Your task to perform on an android device: change your default location settings in chrome Image 0: 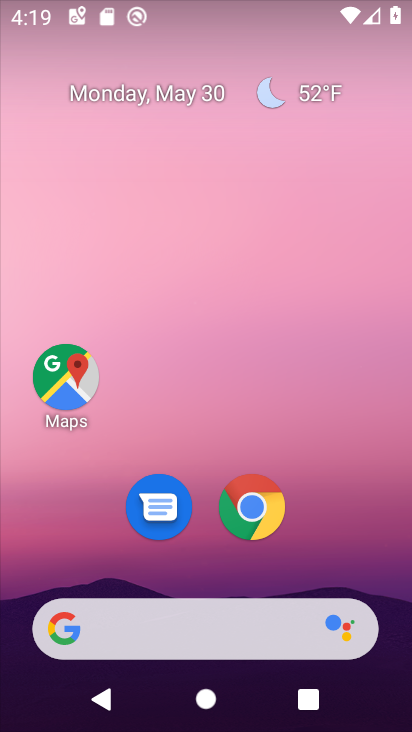
Step 0: drag from (292, 565) to (373, 89)
Your task to perform on an android device: change your default location settings in chrome Image 1: 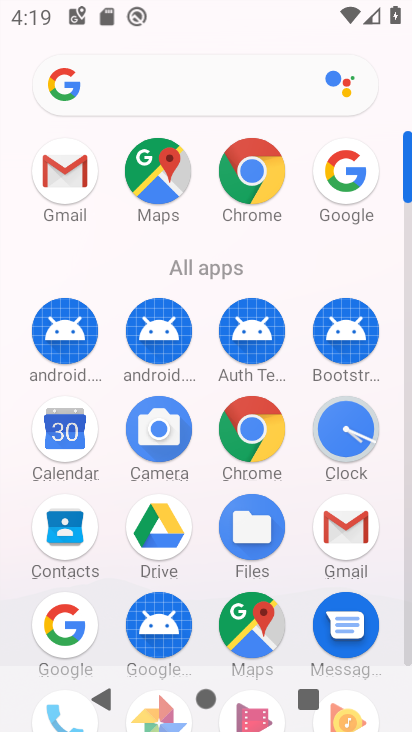
Step 1: click (244, 428)
Your task to perform on an android device: change your default location settings in chrome Image 2: 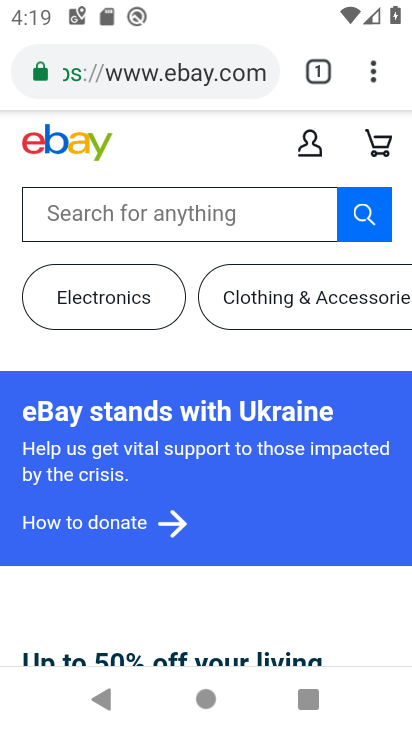
Step 2: drag from (377, 70) to (136, 506)
Your task to perform on an android device: change your default location settings in chrome Image 3: 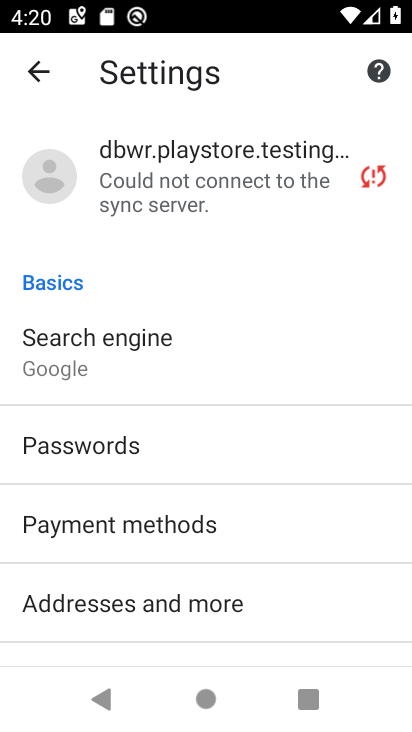
Step 3: drag from (229, 566) to (258, 364)
Your task to perform on an android device: change your default location settings in chrome Image 4: 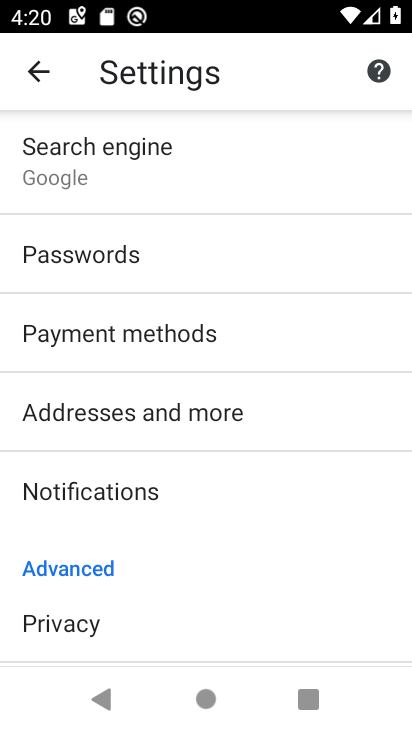
Step 4: drag from (173, 617) to (260, 216)
Your task to perform on an android device: change your default location settings in chrome Image 5: 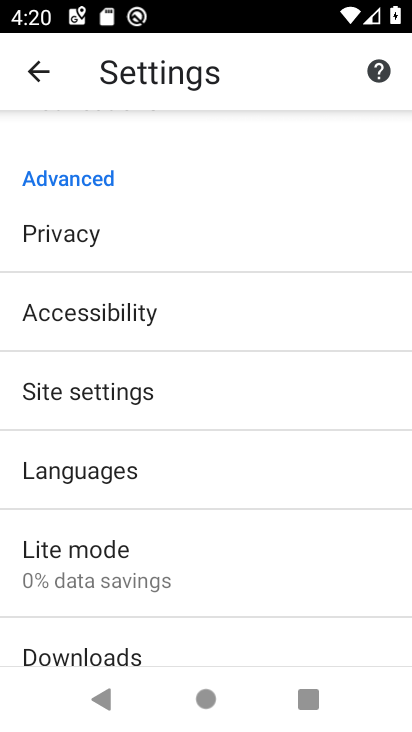
Step 5: click (26, 376)
Your task to perform on an android device: change your default location settings in chrome Image 6: 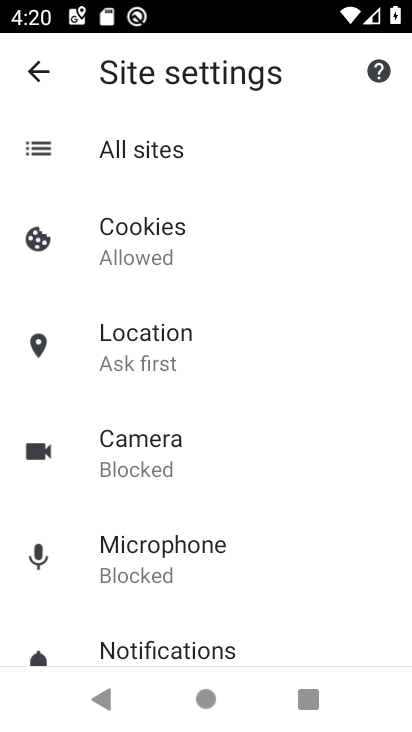
Step 6: click (125, 349)
Your task to perform on an android device: change your default location settings in chrome Image 7: 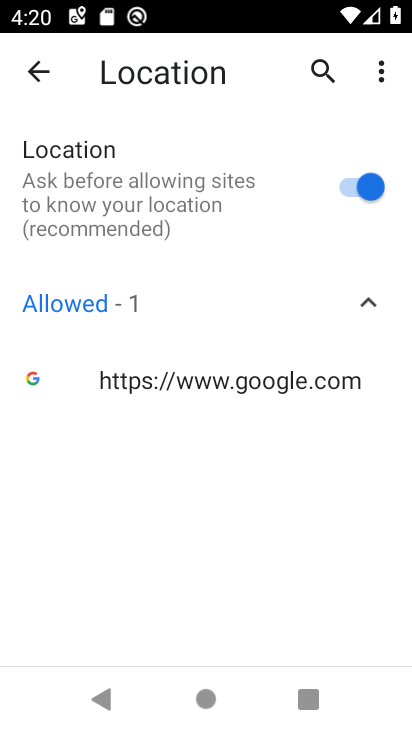
Step 7: click (360, 183)
Your task to perform on an android device: change your default location settings in chrome Image 8: 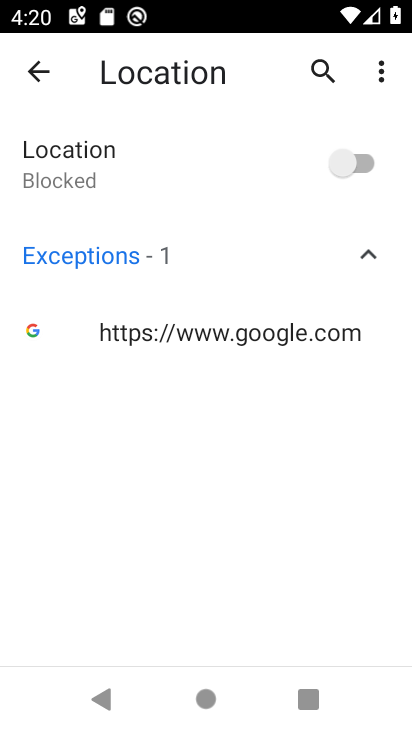
Step 8: task complete